Your task to perform on an android device: Find coffee shops on Maps Image 0: 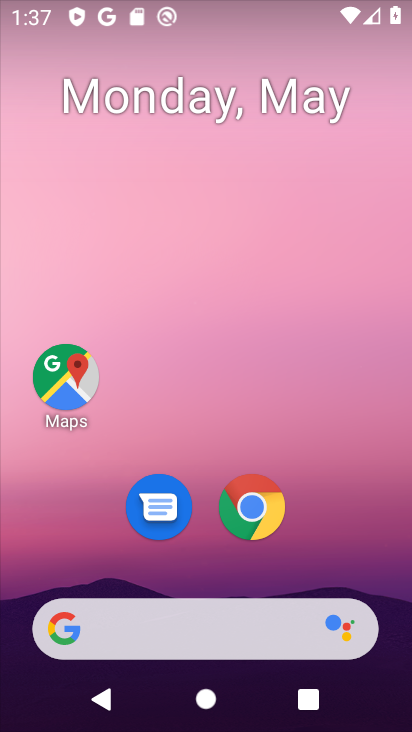
Step 0: drag from (377, 548) to (337, 148)
Your task to perform on an android device: Find coffee shops on Maps Image 1: 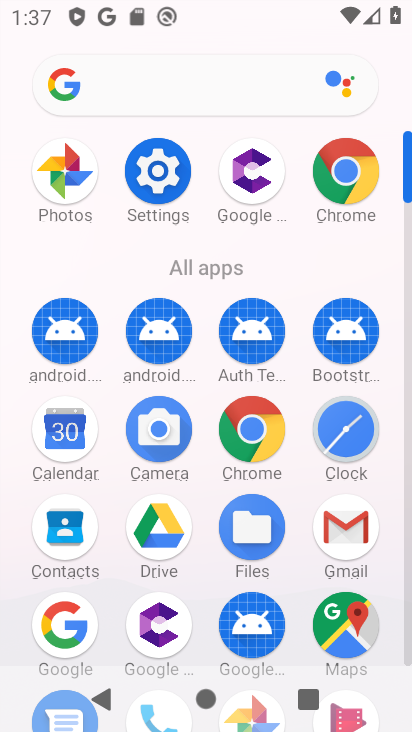
Step 1: click (340, 626)
Your task to perform on an android device: Find coffee shops on Maps Image 2: 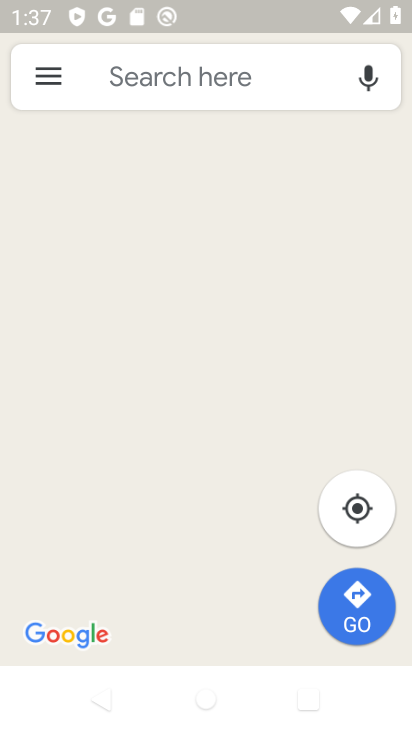
Step 2: click (162, 82)
Your task to perform on an android device: Find coffee shops on Maps Image 3: 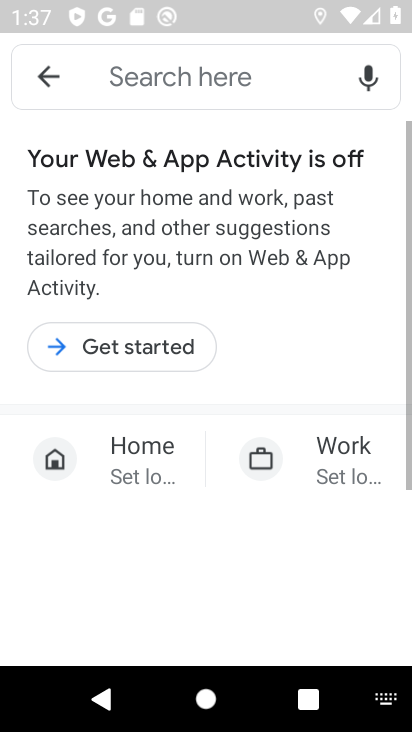
Step 3: type "coffee shops "
Your task to perform on an android device: Find coffee shops on Maps Image 4: 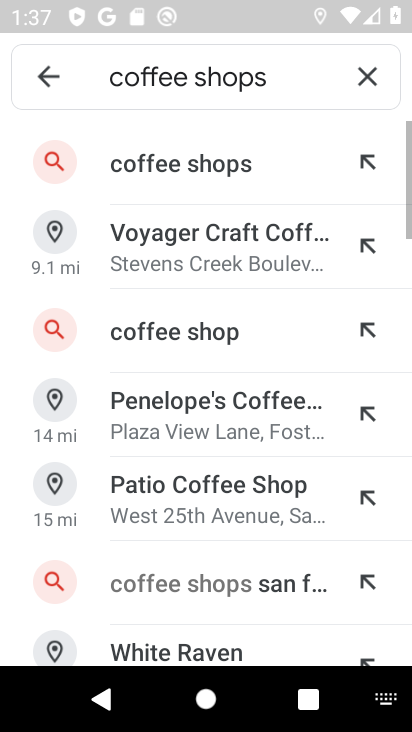
Step 4: click (147, 185)
Your task to perform on an android device: Find coffee shops on Maps Image 5: 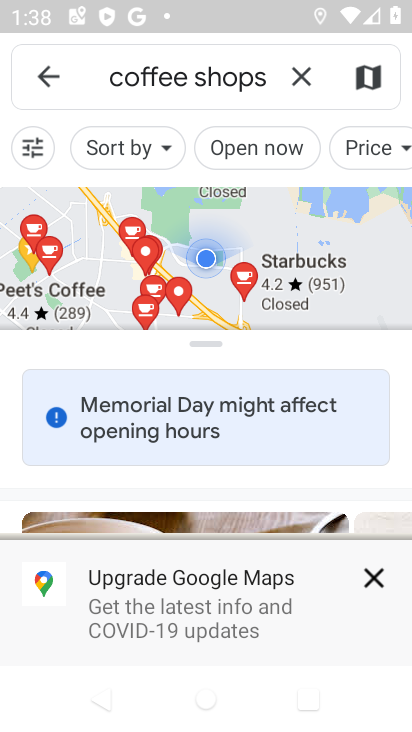
Step 5: task complete